Your task to perform on an android device: turn smart compose on in the gmail app Image 0: 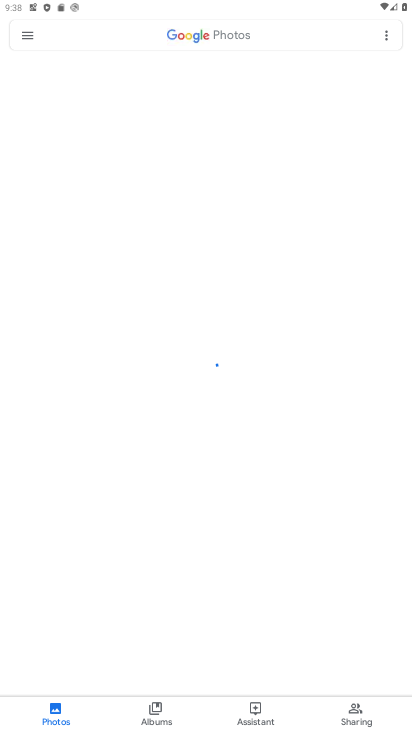
Step 0: press home button
Your task to perform on an android device: turn smart compose on in the gmail app Image 1: 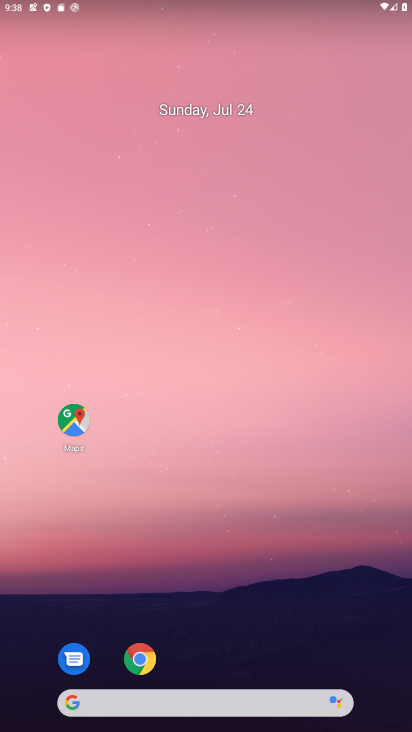
Step 1: drag from (385, 581) to (369, 178)
Your task to perform on an android device: turn smart compose on in the gmail app Image 2: 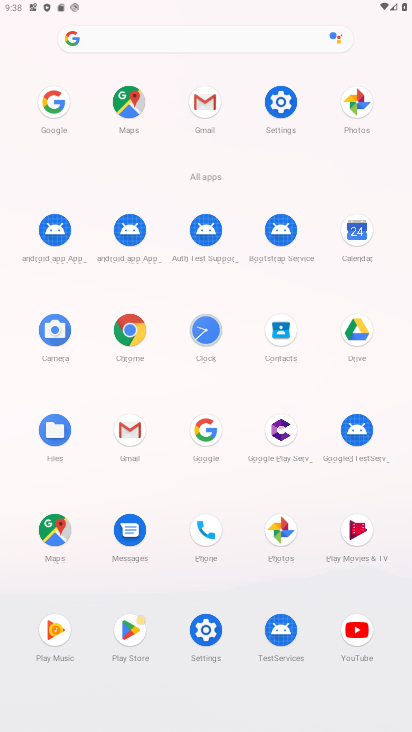
Step 2: click (134, 434)
Your task to perform on an android device: turn smart compose on in the gmail app Image 3: 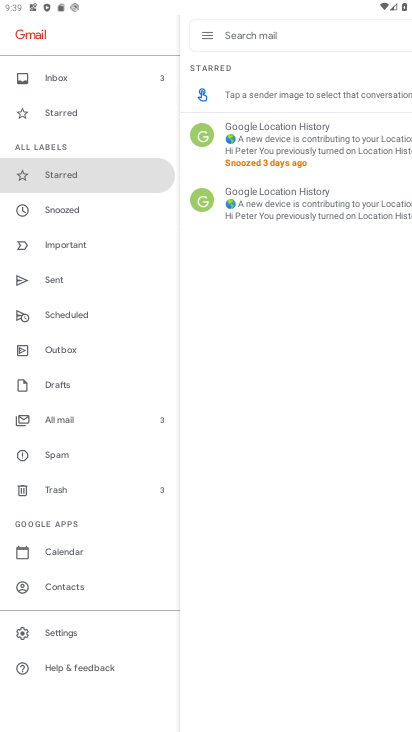
Step 3: click (66, 627)
Your task to perform on an android device: turn smart compose on in the gmail app Image 4: 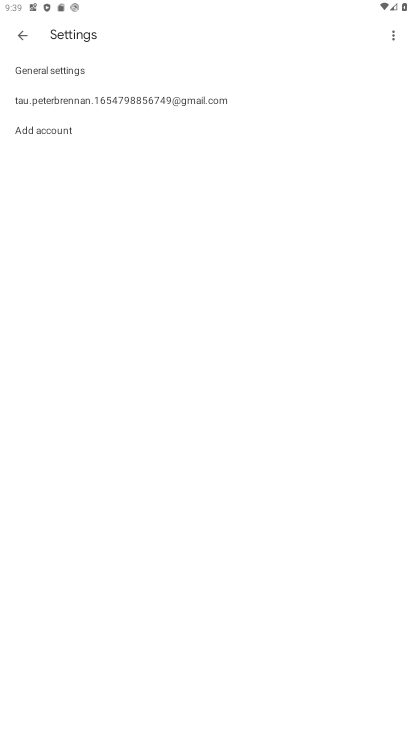
Step 4: click (50, 96)
Your task to perform on an android device: turn smart compose on in the gmail app Image 5: 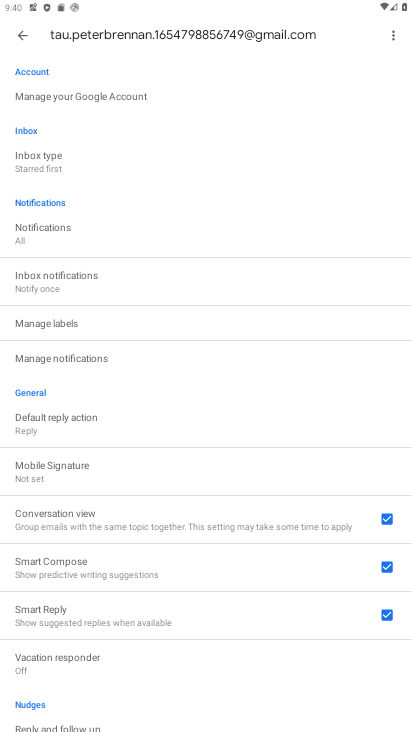
Step 5: click (93, 578)
Your task to perform on an android device: turn smart compose on in the gmail app Image 6: 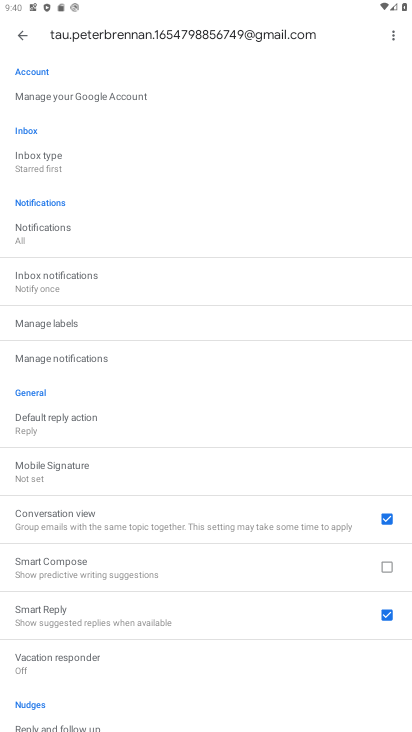
Step 6: click (94, 564)
Your task to perform on an android device: turn smart compose on in the gmail app Image 7: 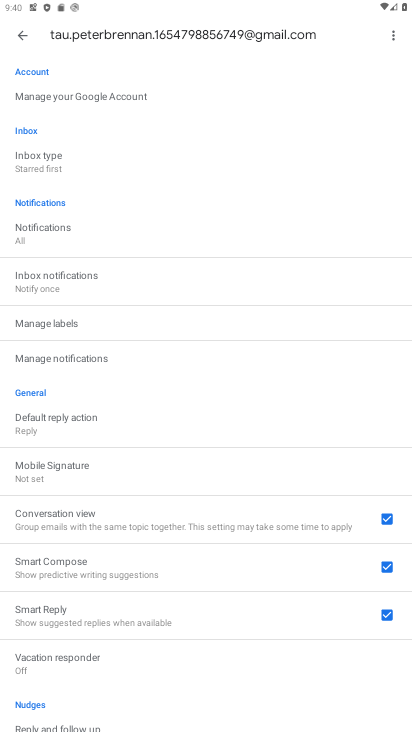
Step 7: task complete